Your task to perform on an android device: Go to ESPN.com Image 0: 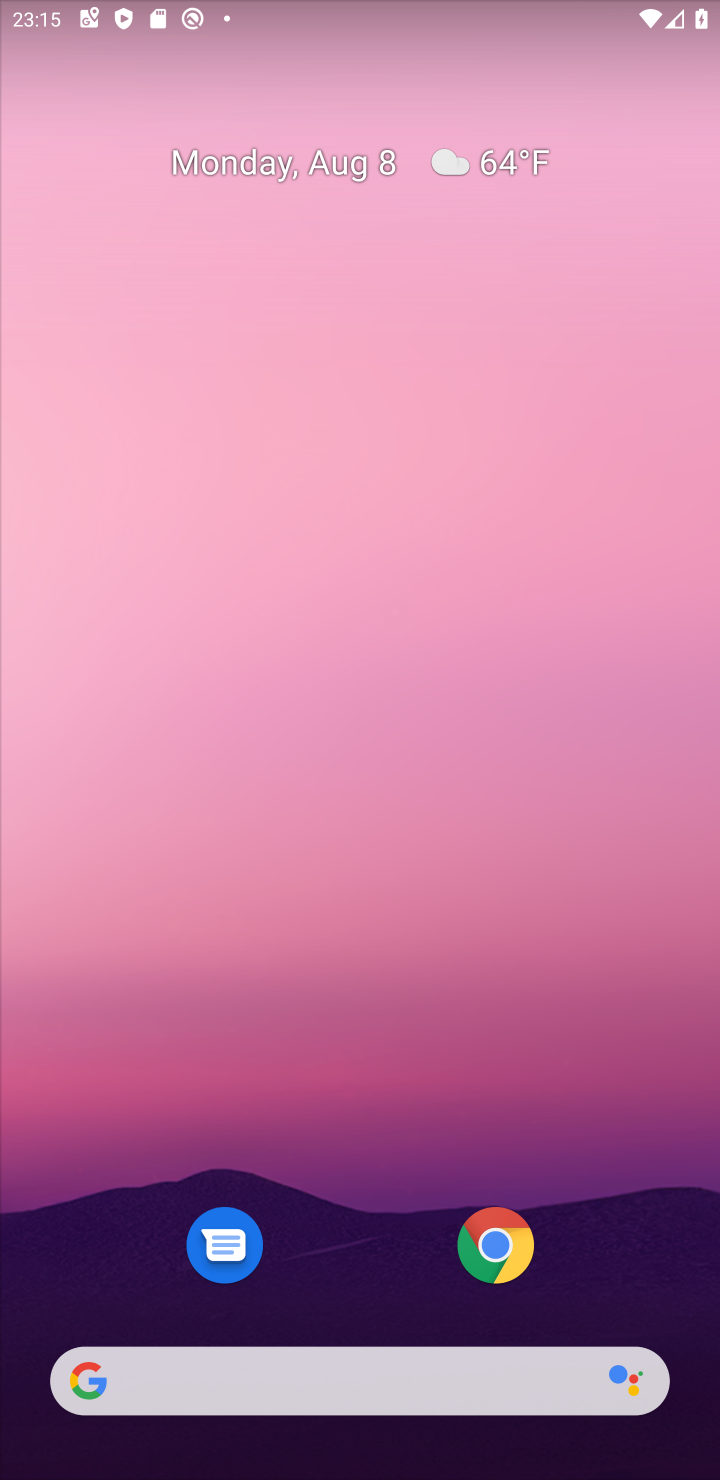
Step 0: click (516, 1241)
Your task to perform on an android device: Go to ESPN.com Image 1: 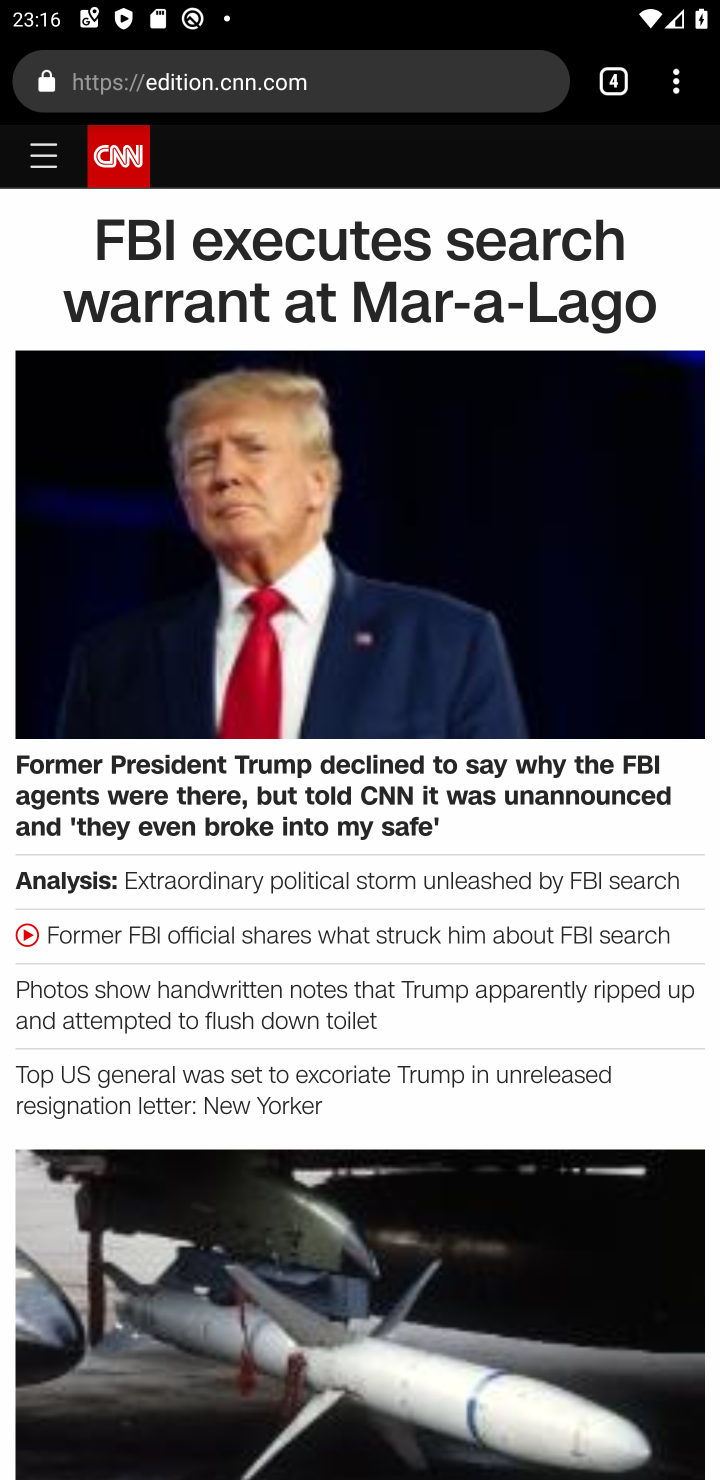
Step 1: click (599, 80)
Your task to perform on an android device: Go to ESPN.com Image 2: 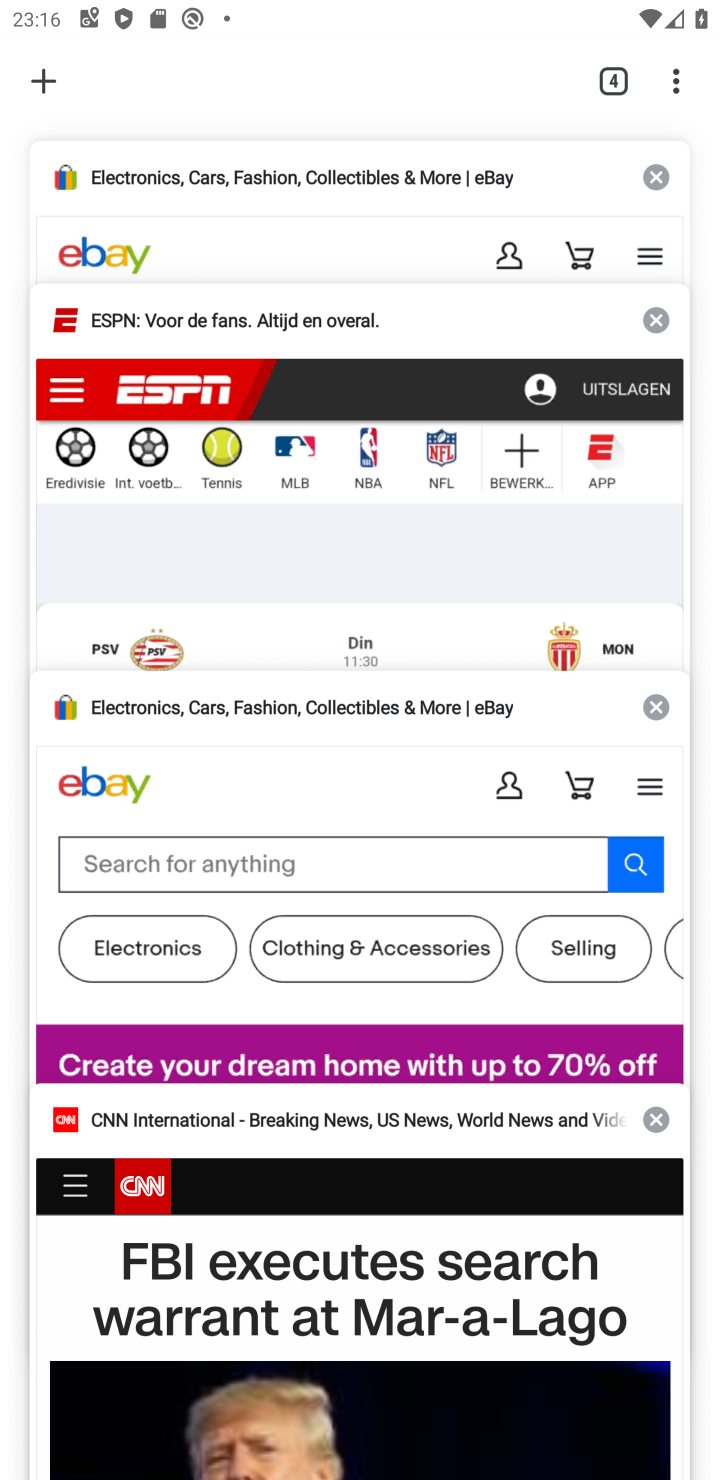
Step 2: click (168, 413)
Your task to perform on an android device: Go to ESPN.com Image 3: 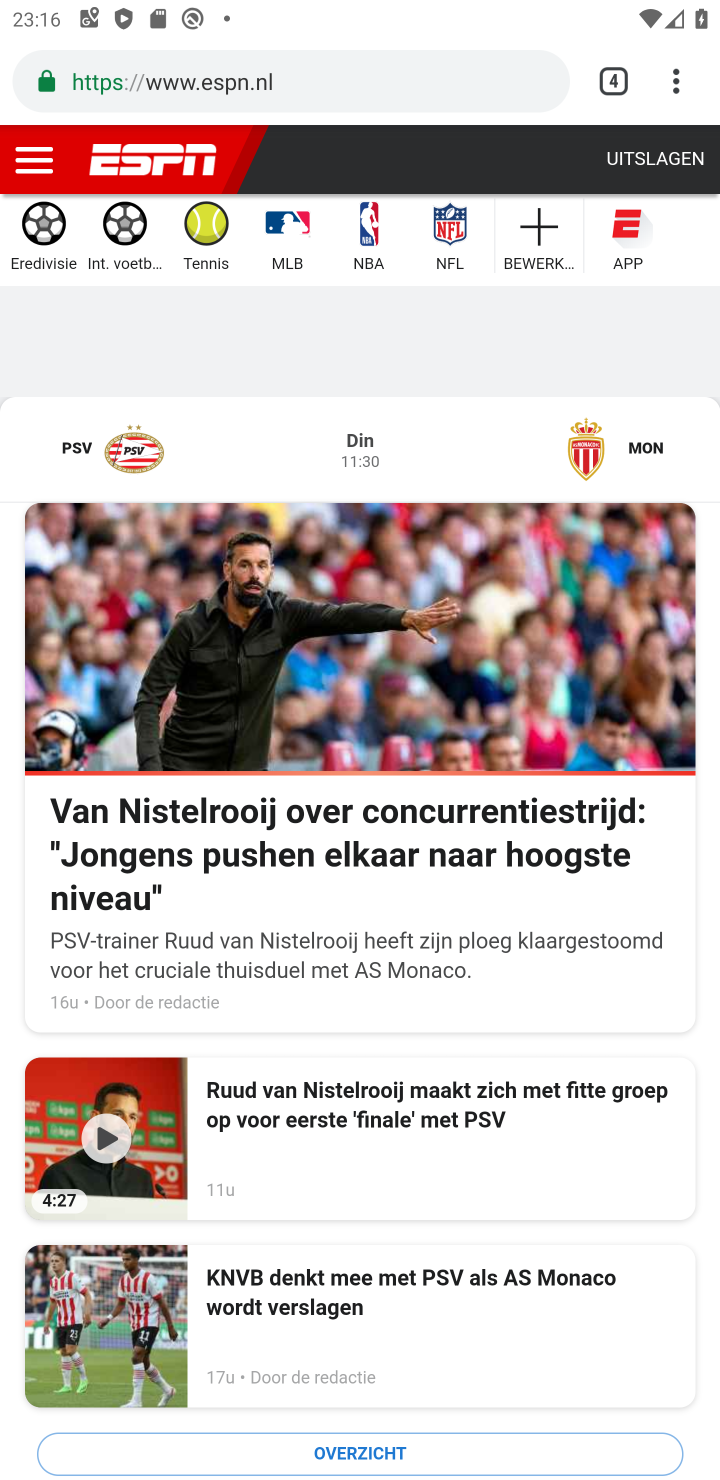
Step 3: task complete